Your task to perform on an android device: star an email in the gmail app Image 0: 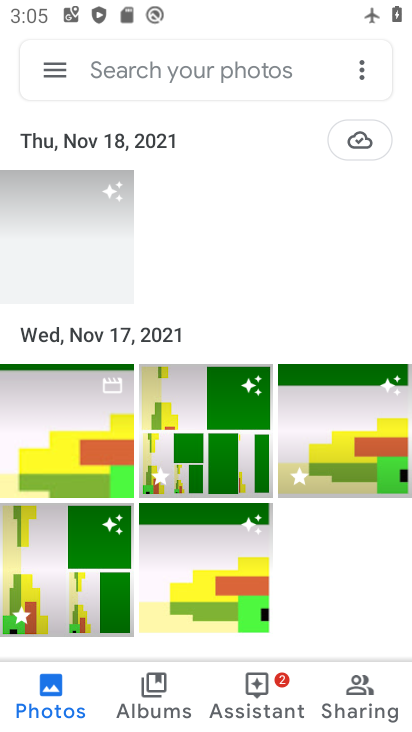
Step 0: press home button
Your task to perform on an android device: star an email in the gmail app Image 1: 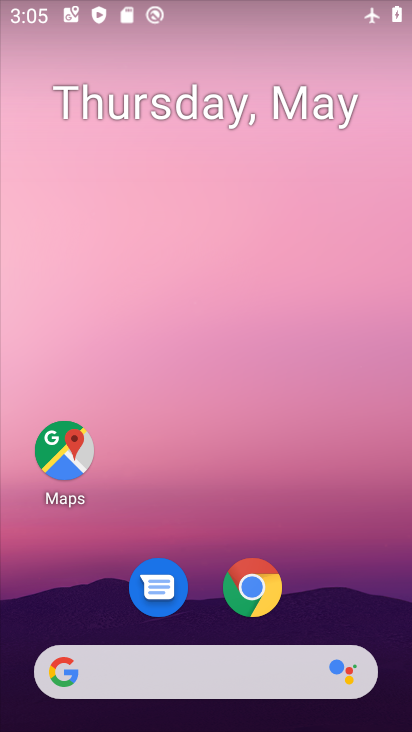
Step 1: drag from (207, 569) to (190, 160)
Your task to perform on an android device: star an email in the gmail app Image 2: 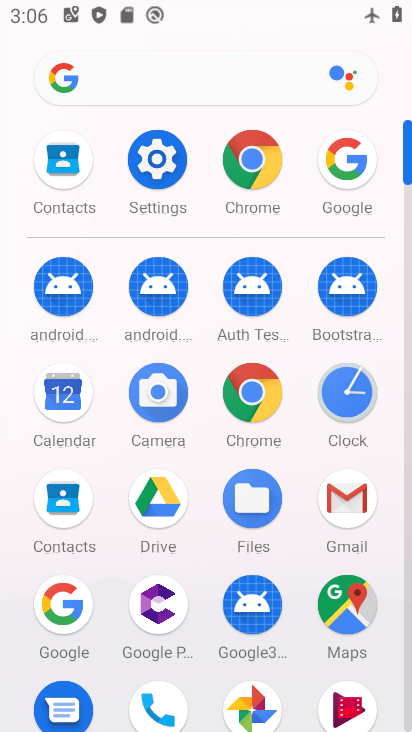
Step 2: click (366, 526)
Your task to perform on an android device: star an email in the gmail app Image 3: 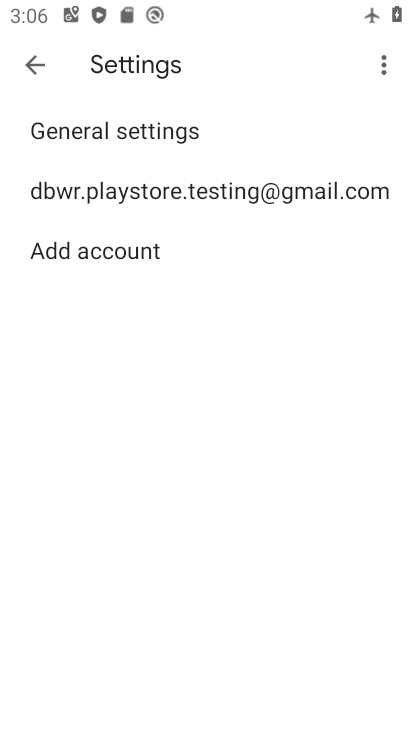
Step 3: click (18, 52)
Your task to perform on an android device: star an email in the gmail app Image 4: 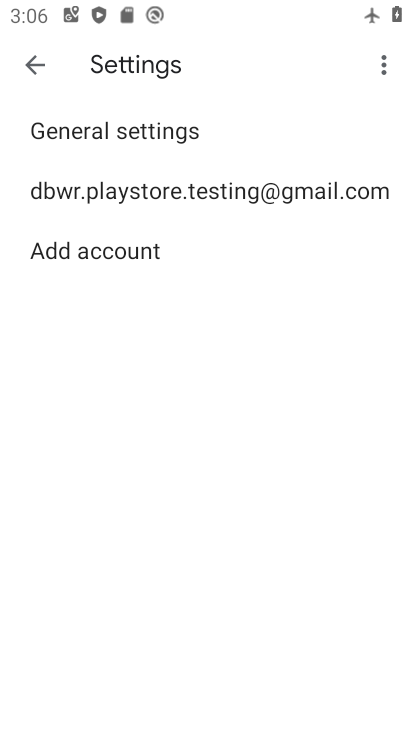
Step 4: click (21, 52)
Your task to perform on an android device: star an email in the gmail app Image 5: 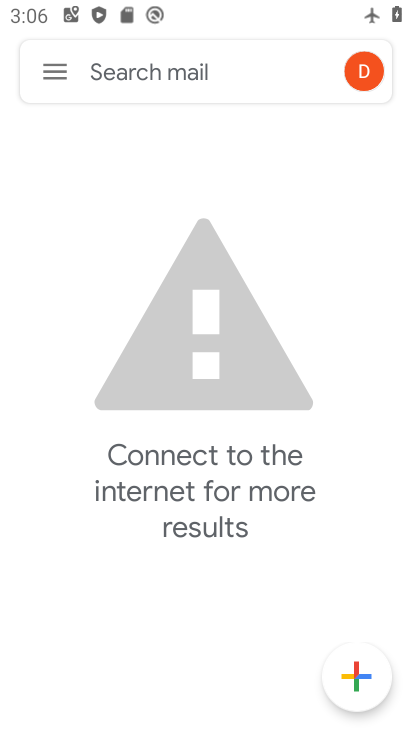
Step 5: click (58, 75)
Your task to perform on an android device: star an email in the gmail app Image 6: 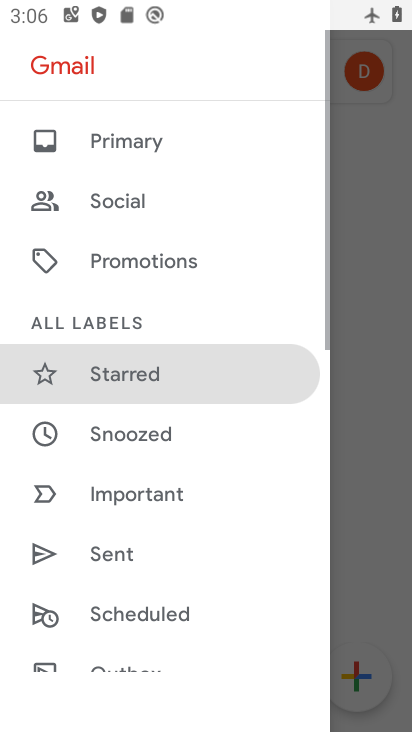
Step 6: drag from (134, 262) to (146, 575)
Your task to perform on an android device: star an email in the gmail app Image 7: 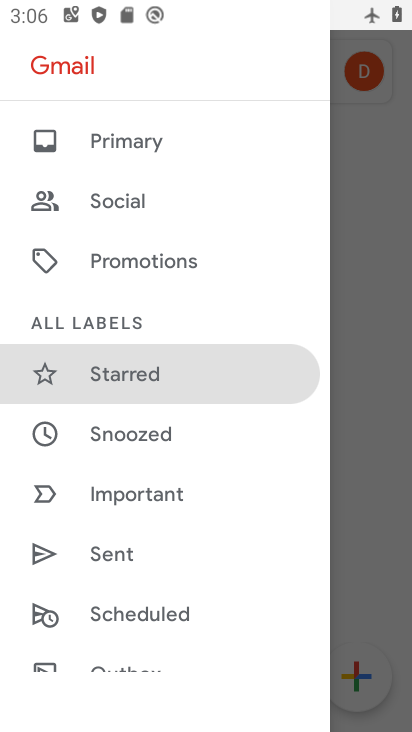
Step 7: drag from (163, 558) to (204, 312)
Your task to perform on an android device: star an email in the gmail app Image 8: 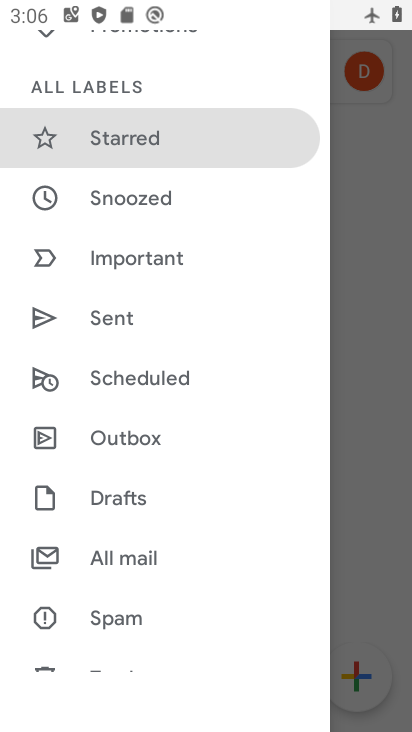
Step 8: click (161, 571)
Your task to perform on an android device: star an email in the gmail app Image 9: 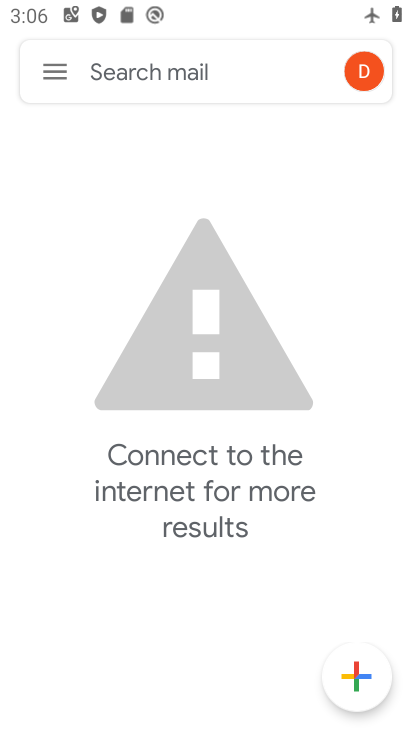
Step 9: task complete